Your task to perform on an android device: set the stopwatch Image 0: 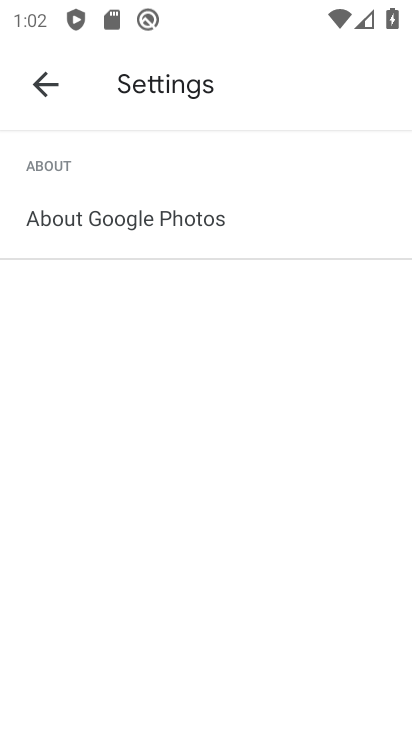
Step 0: press back button
Your task to perform on an android device: set the stopwatch Image 1: 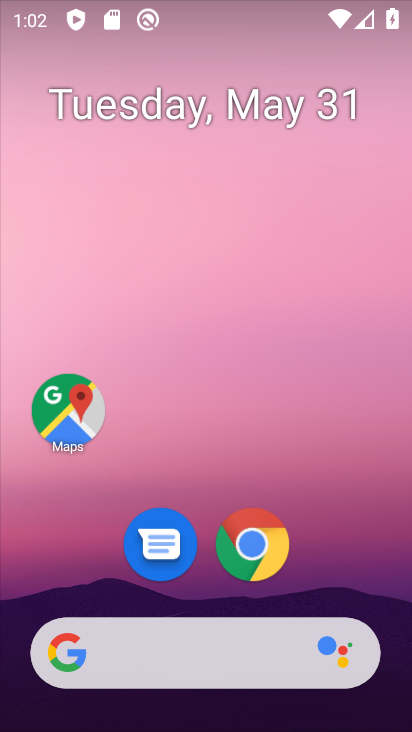
Step 1: drag from (232, 370) to (290, 3)
Your task to perform on an android device: set the stopwatch Image 2: 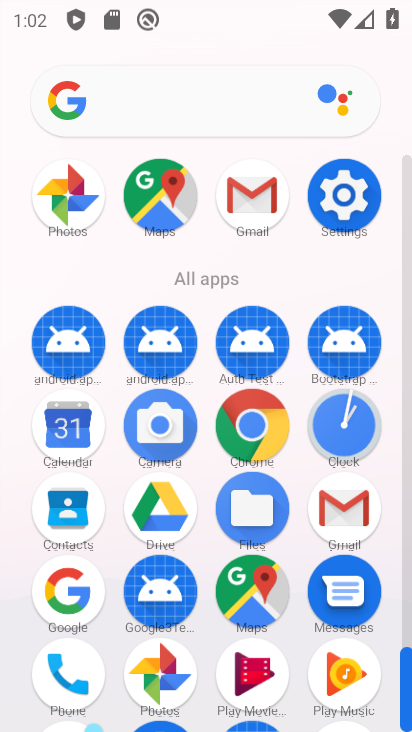
Step 2: click (337, 431)
Your task to perform on an android device: set the stopwatch Image 3: 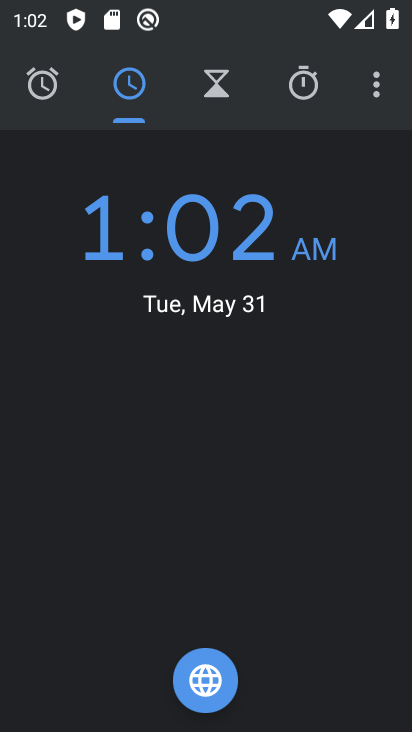
Step 3: click (300, 80)
Your task to perform on an android device: set the stopwatch Image 4: 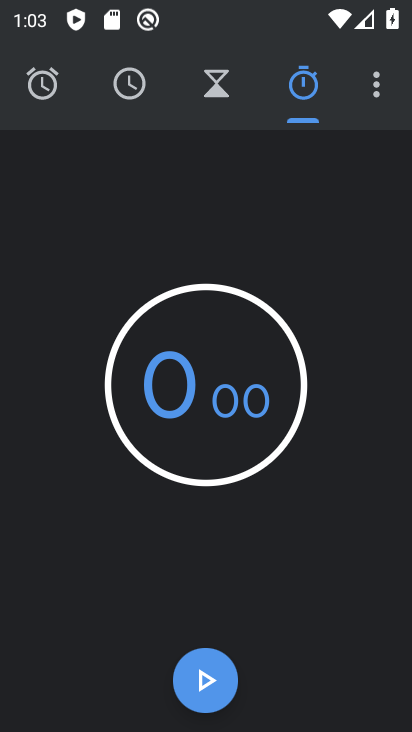
Step 4: click (205, 381)
Your task to perform on an android device: set the stopwatch Image 5: 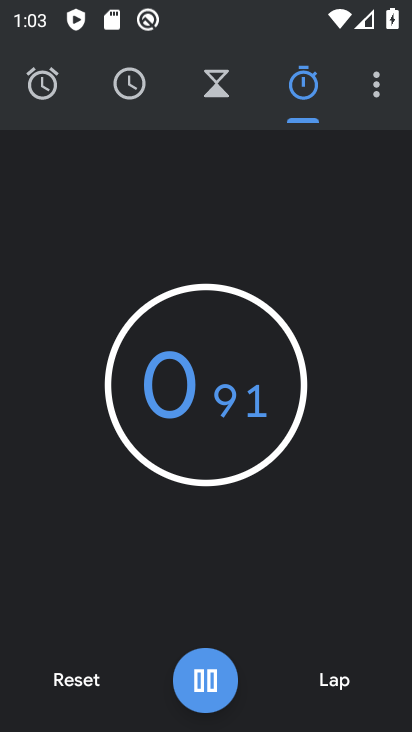
Step 5: click (205, 381)
Your task to perform on an android device: set the stopwatch Image 6: 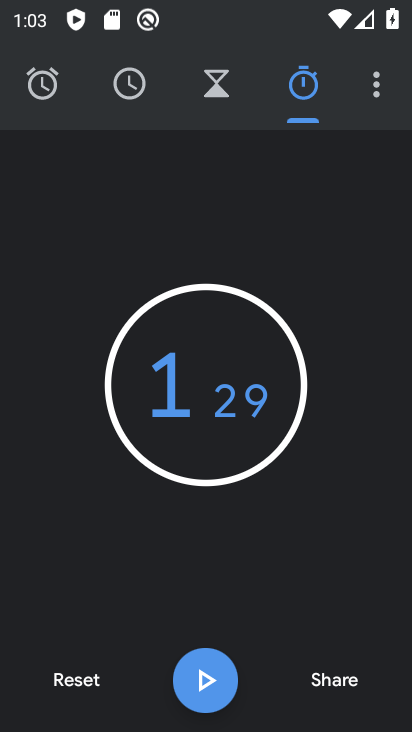
Step 6: task complete